Your task to perform on an android device: Go to location settings Image 0: 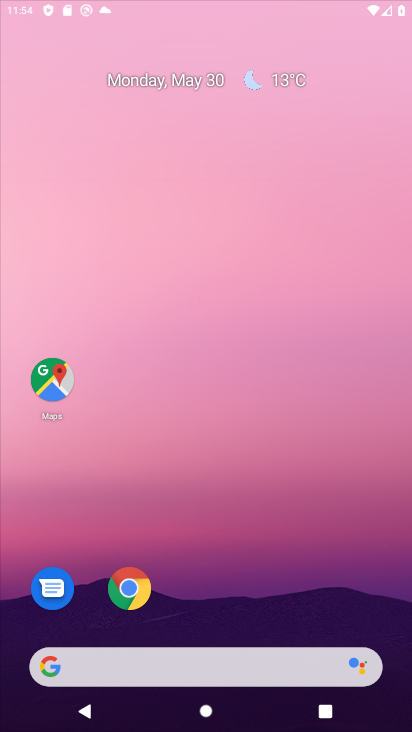
Step 0: press home button
Your task to perform on an android device: Go to location settings Image 1: 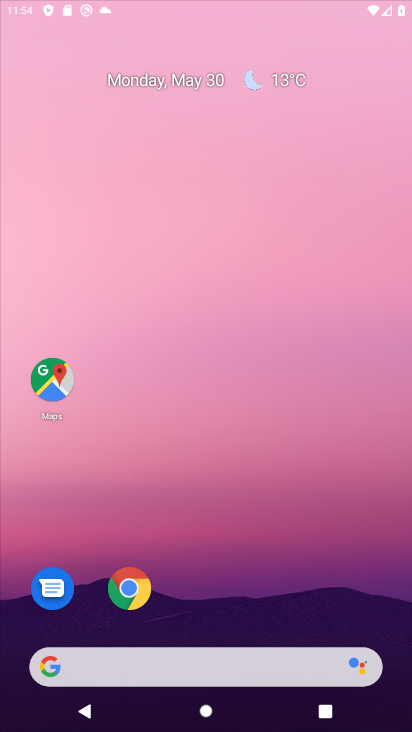
Step 1: click (384, 297)
Your task to perform on an android device: Go to location settings Image 2: 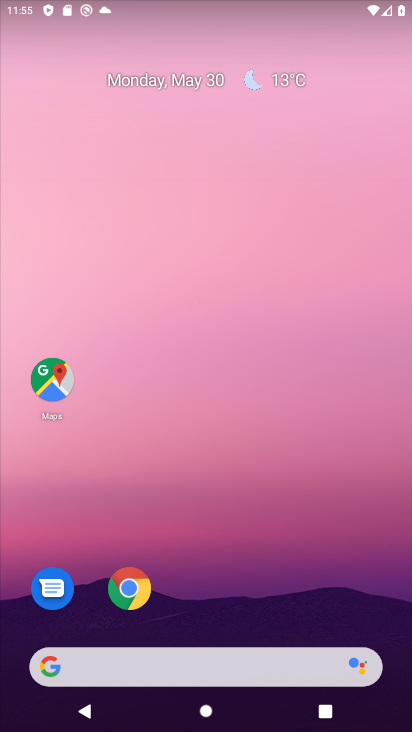
Step 2: drag from (399, 659) to (330, 50)
Your task to perform on an android device: Go to location settings Image 3: 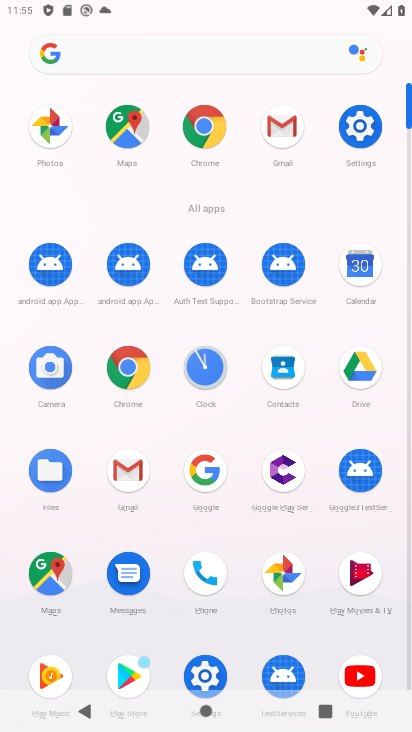
Step 3: click (196, 666)
Your task to perform on an android device: Go to location settings Image 4: 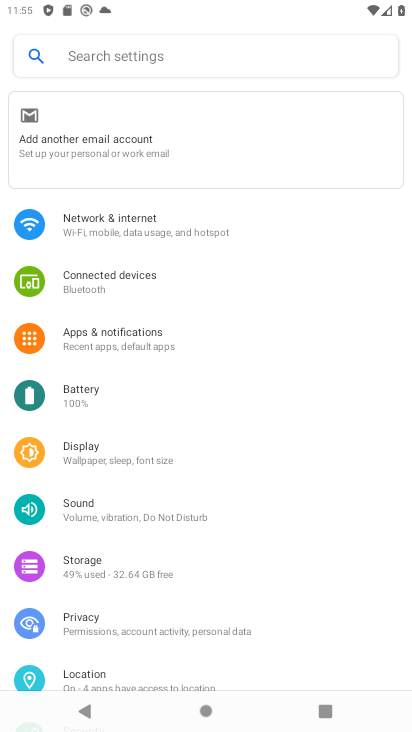
Step 4: drag from (309, 601) to (311, 248)
Your task to perform on an android device: Go to location settings Image 5: 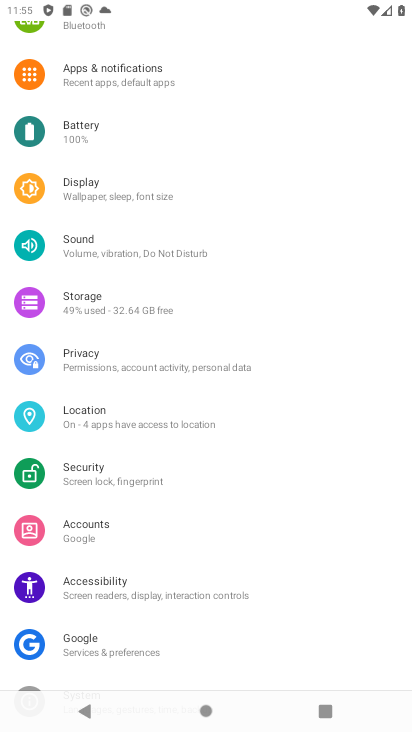
Step 5: click (93, 409)
Your task to perform on an android device: Go to location settings Image 6: 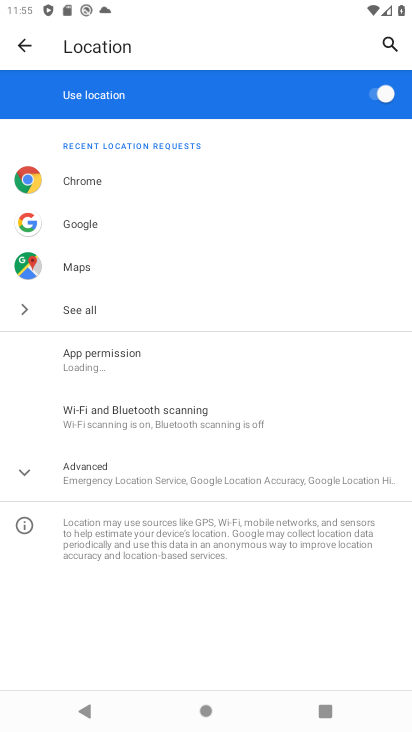
Step 6: click (23, 474)
Your task to perform on an android device: Go to location settings Image 7: 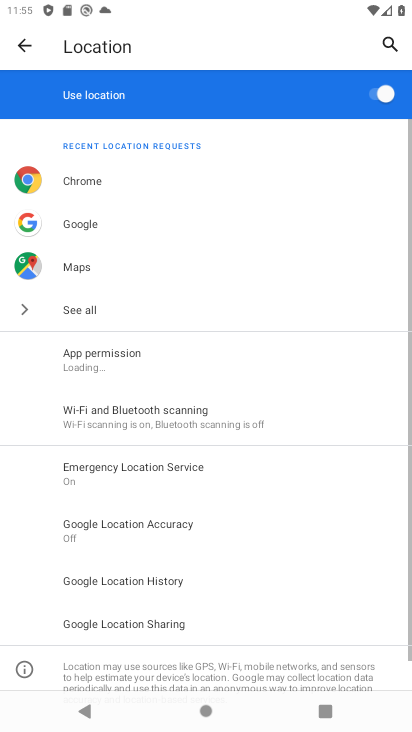
Step 7: task complete